Your task to perform on an android device: set default search engine in the chrome app Image 0: 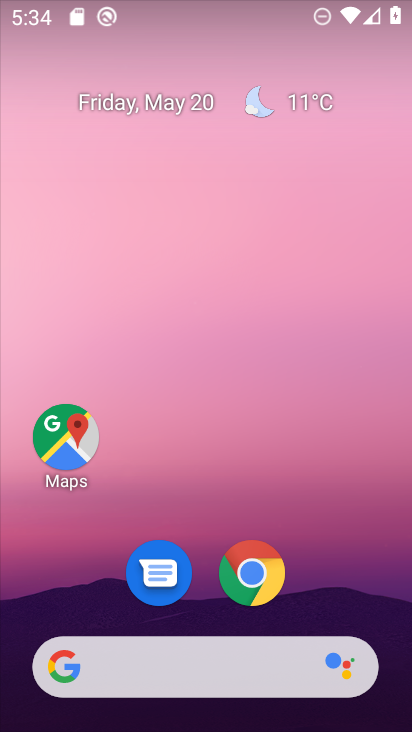
Step 0: click (271, 571)
Your task to perform on an android device: set default search engine in the chrome app Image 1: 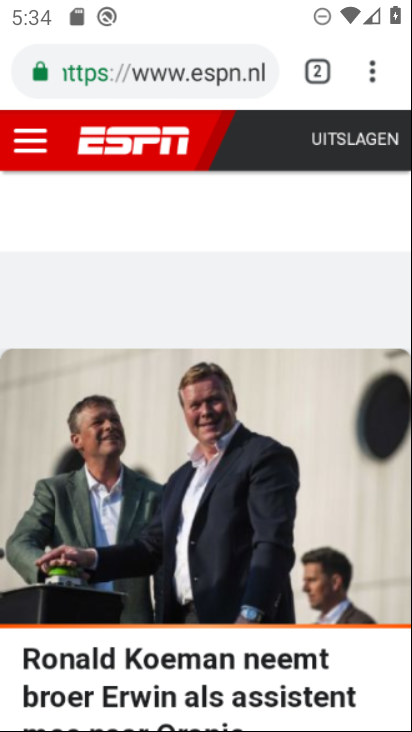
Step 1: click (375, 72)
Your task to perform on an android device: set default search engine in the chrome app Image 2: 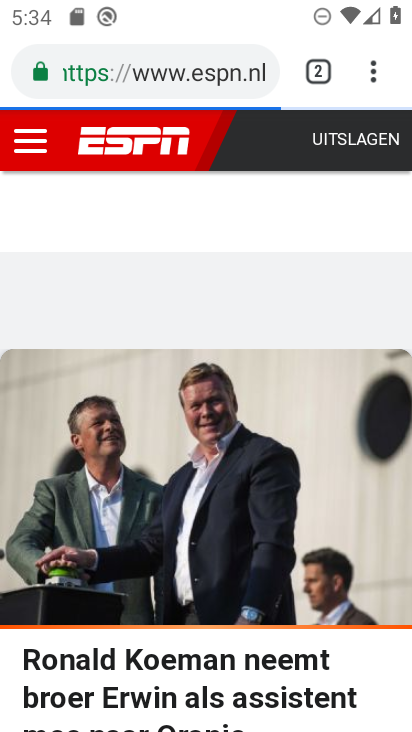
Step 2: click (375, 67)
Your task to perform on an android device: set default search engine in the chrome app Image 3: 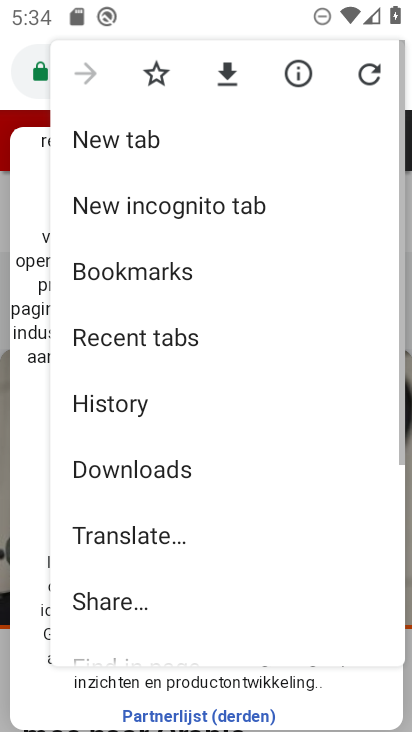
Step 3: drag from (243, 577) to (200, 154)
Your task to perform on an android device: set default search engine in the chrome app Image 4: 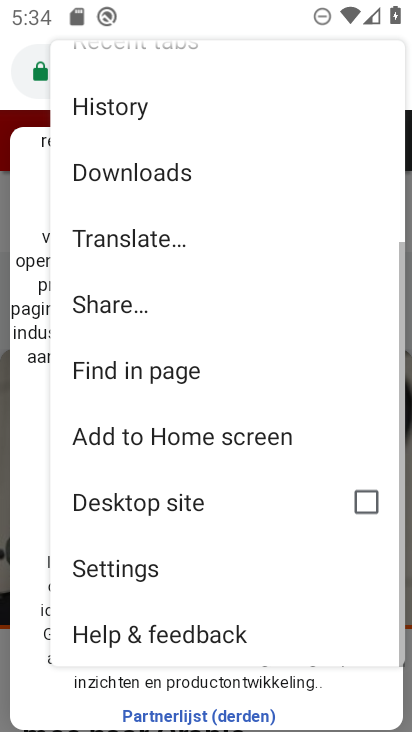
Step 4: click (192, 566)
Your task to perform on an android device: set default search engine in the chrome app Image 5: 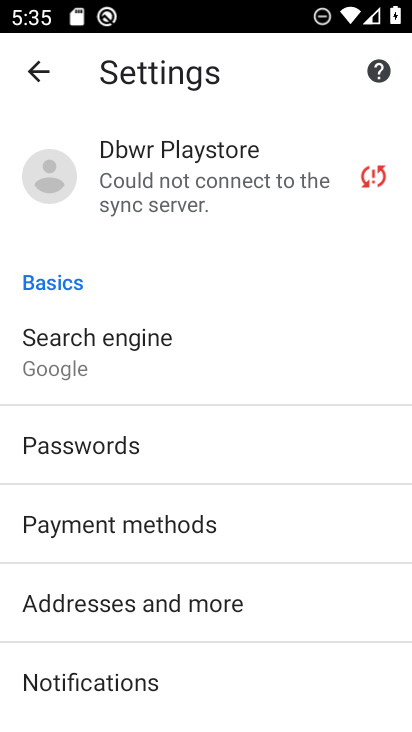
Step 5: click (168, 351)
Your task to perform on an android device: set default search engine in the chrome app Image 6: 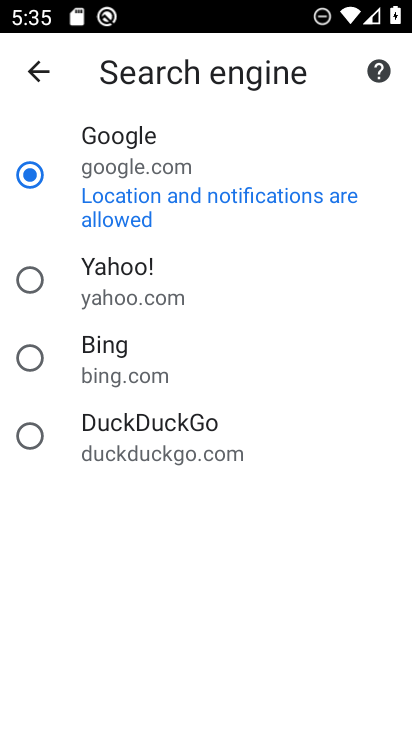
Step 6: click (160, 145)
Your task to perform on an android device: set default search engine in the chrome app Image 7: 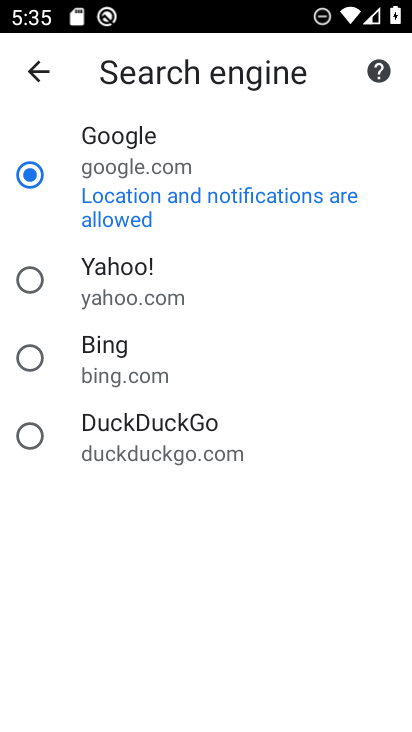
Step 7: task complete